Your task to perform on an android device: Do I have any events today? Image 0: 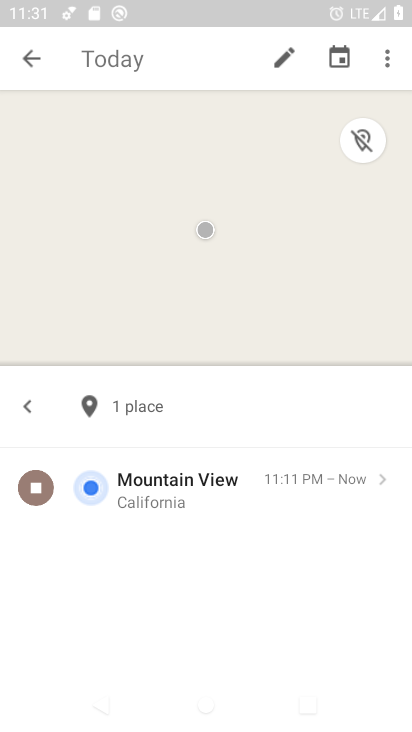
Step 0: press home button
Your task to perform on an android device: Do I have any events today? Image 1: 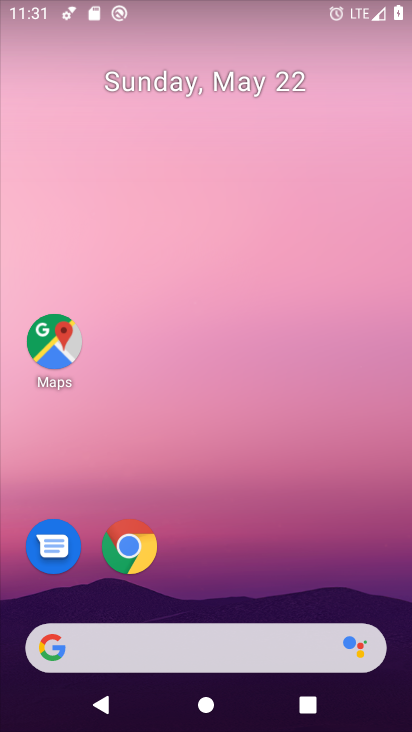
Step 1: drag from (235, 654) to (256, 243)
Your task to perform on an android device: Do I have any events today? Image 2: 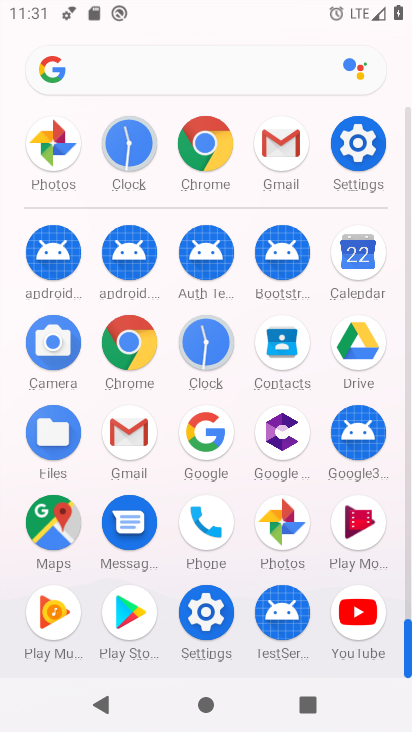
Step 2: click (355, 279)
Your task to perform on an android device: Do I have any events today? Image 3: 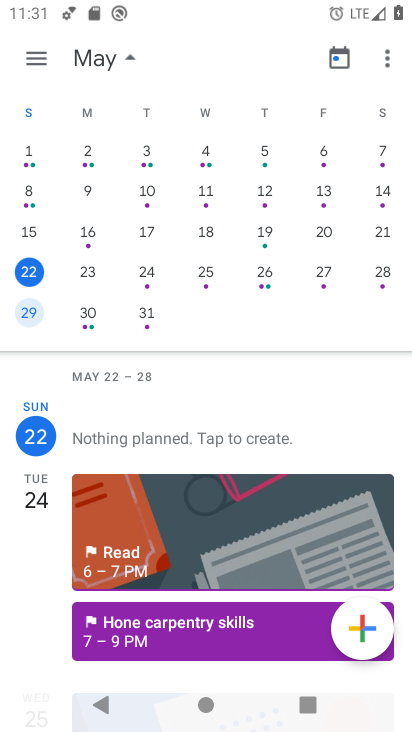
Step 3: click (98, 277)
Your task to perform on an android device: Do I have any events today? Image 4: 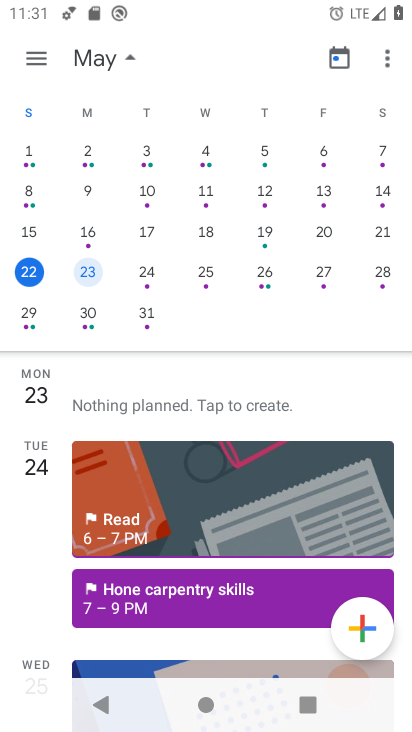
Step 4: task complete